Your task to perform on an android device: install app "ColorNote Notepad Notes" Image 0: 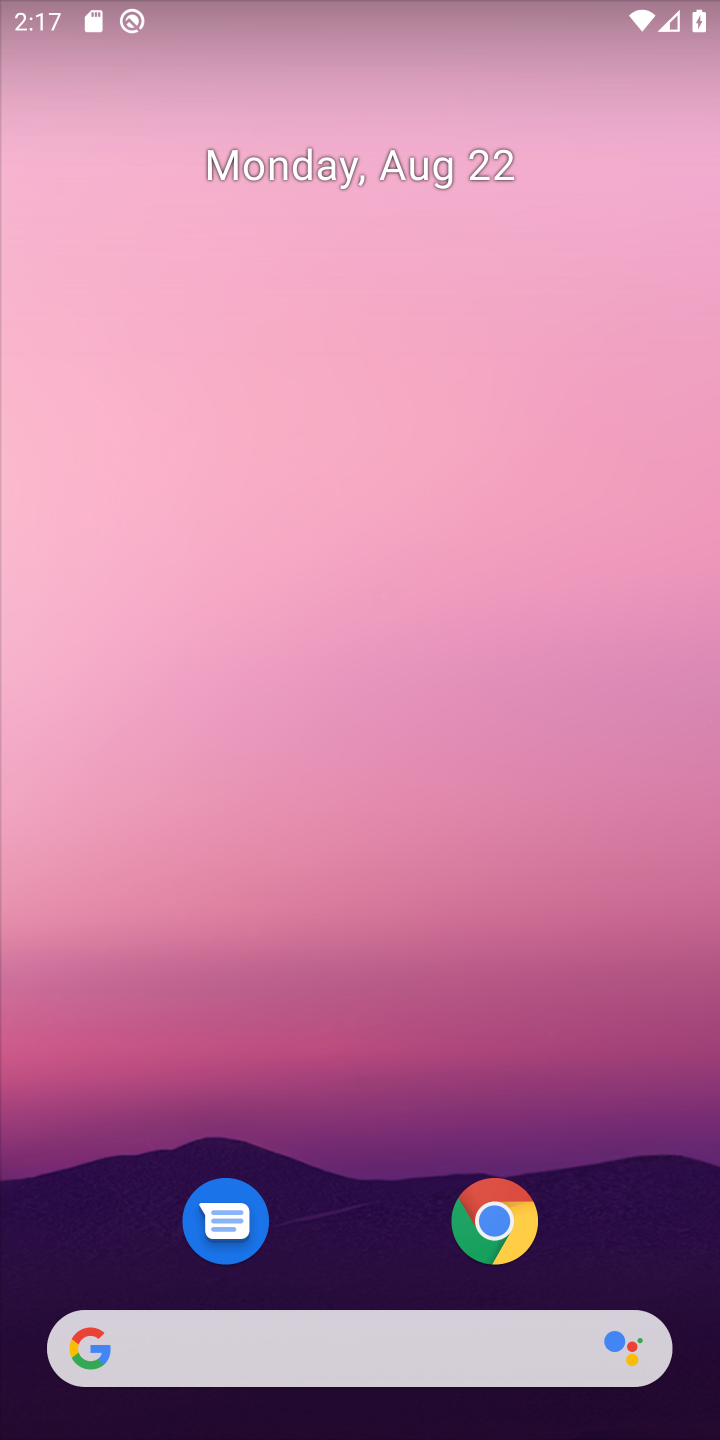
Step 0: drag from (357, 1238) to (293, 197)
Your task to perform on an android device: install app "ColorNote Notepad Notes" Image 1: 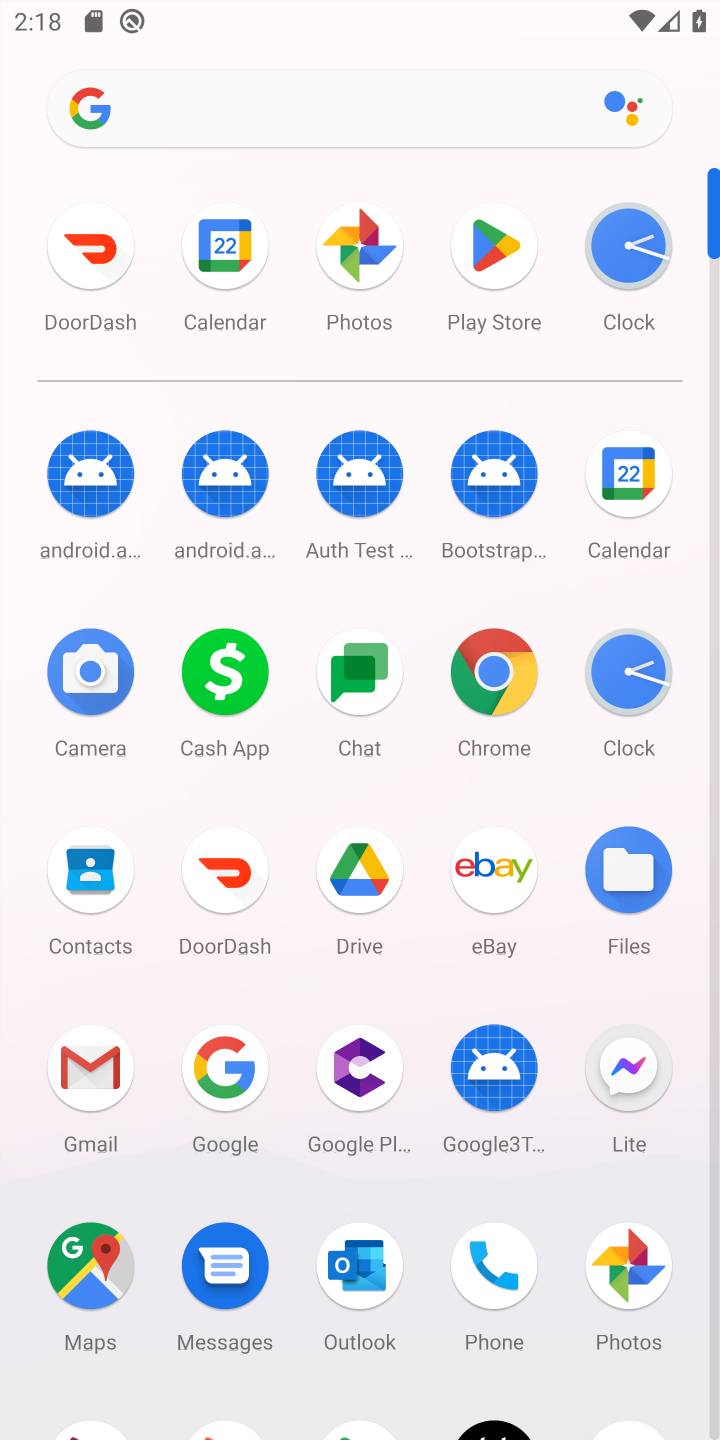
Step 1: click (489, 232)
Your task to perform on an android device: install app "ColorNote Notepad Notes" Image 2: 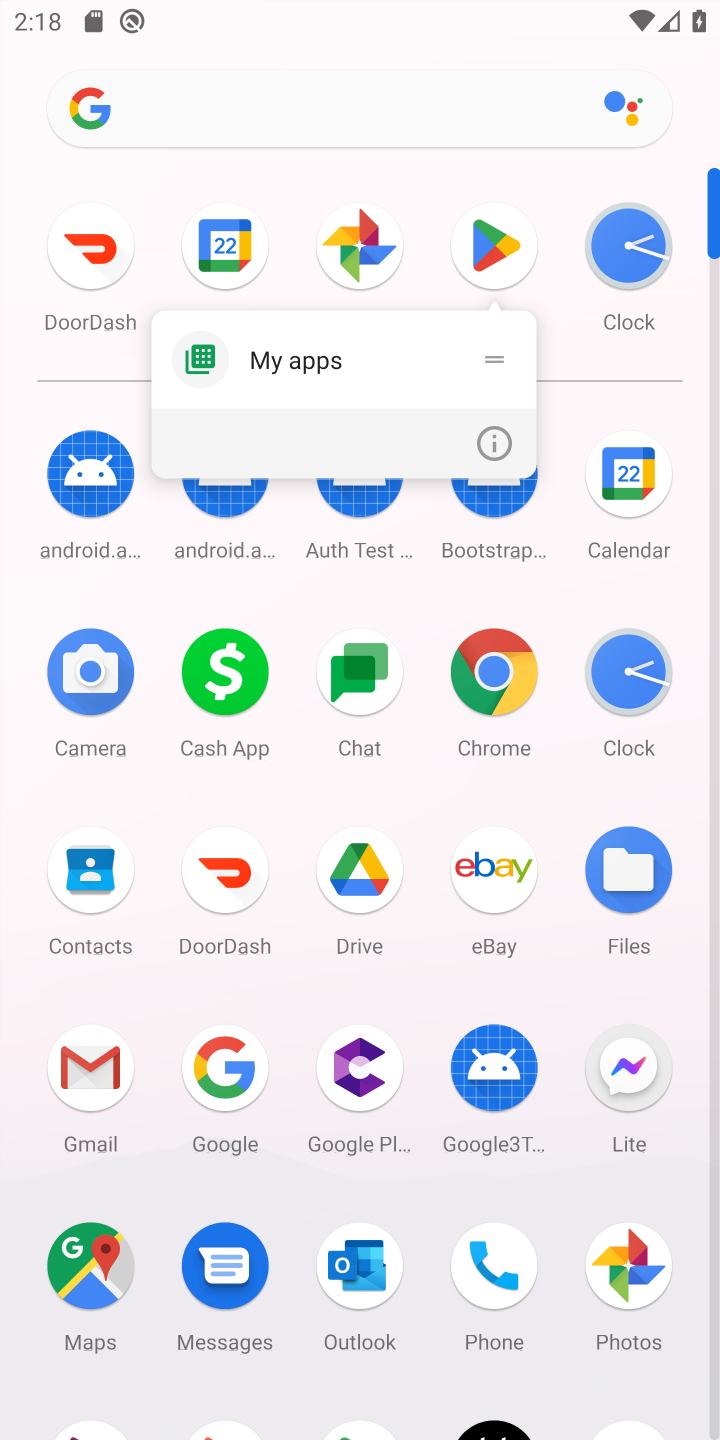
Step 2: click (498, 245)
Your task to perform on an android device: install app "ColorNote Notepad Notes" Image 3: 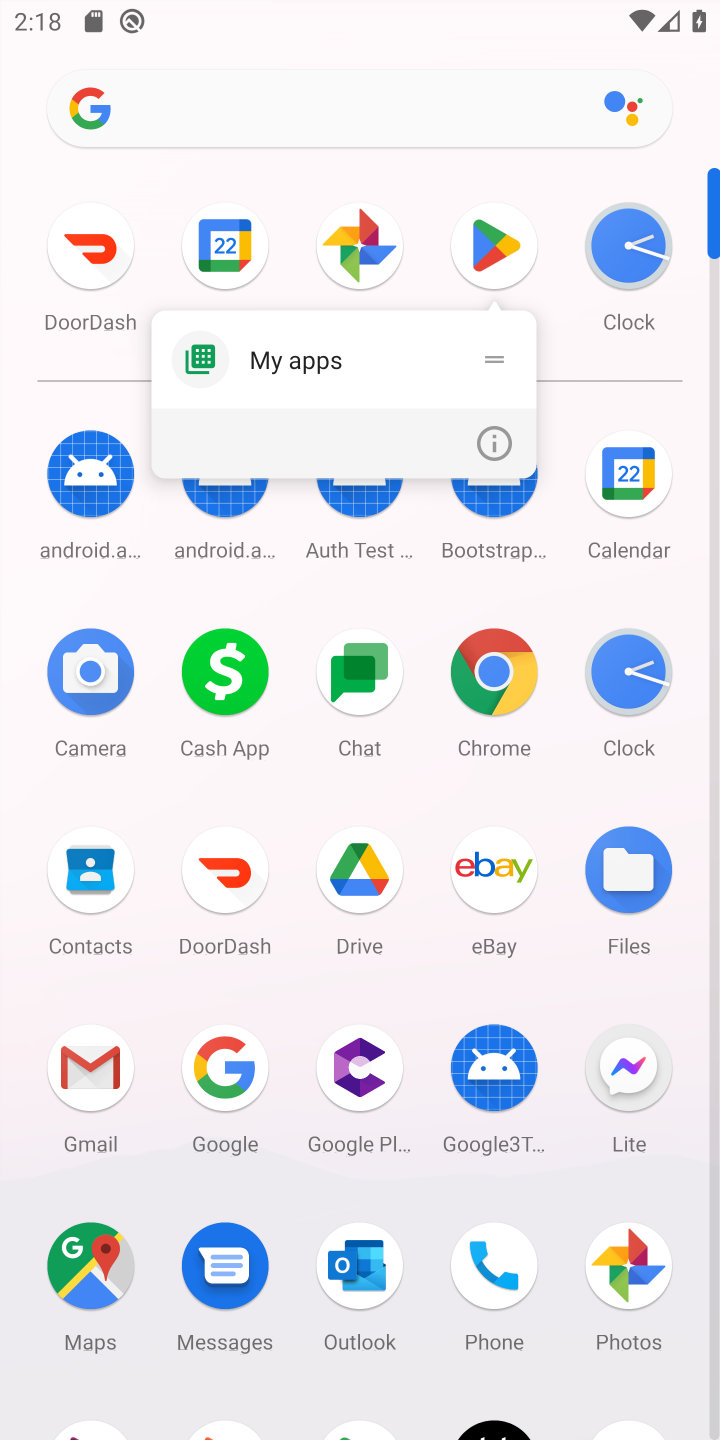
Step 3: click (489, 237)
Your task to perform on an android device: install app "ColorNote Notepad Notes" Image 4: 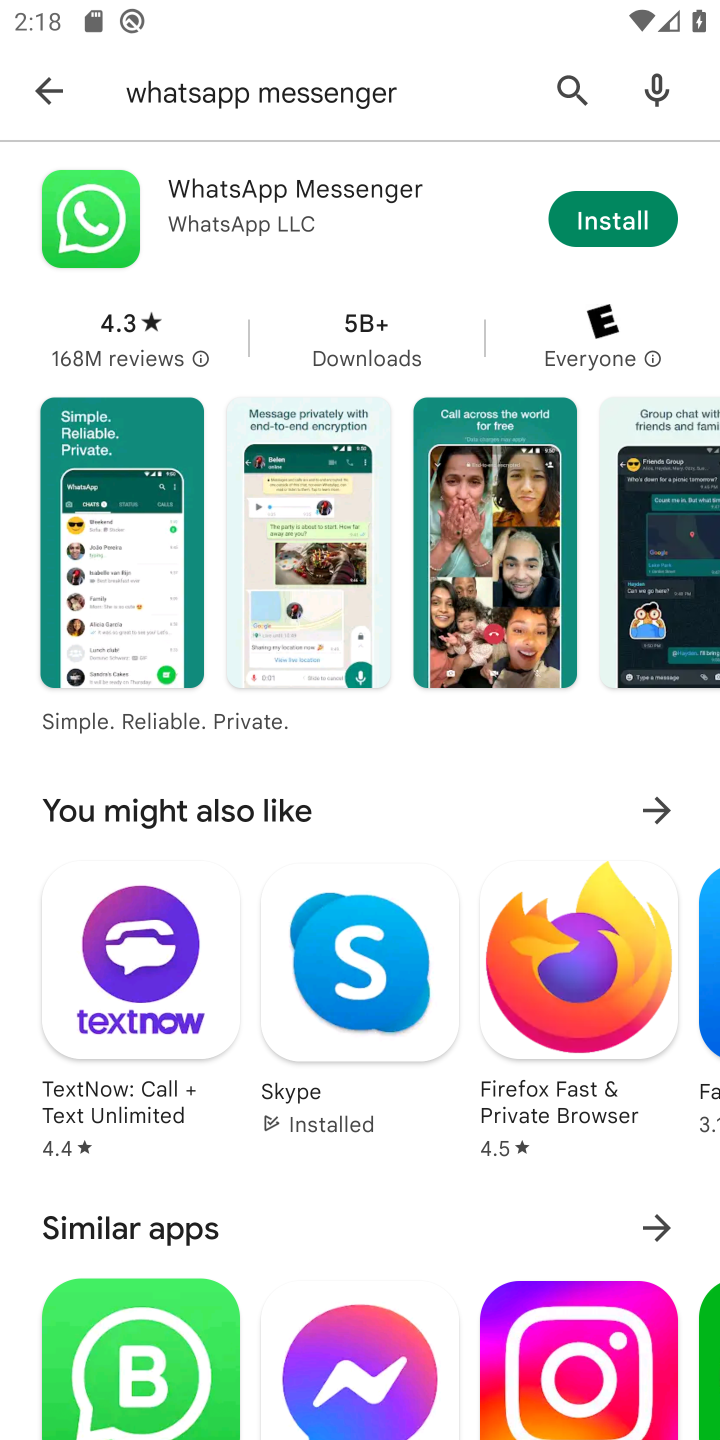
Step 4: click (607, 210)
Your task to perform on an android device: install app "ColorNote Notepad Notes" Image 5: 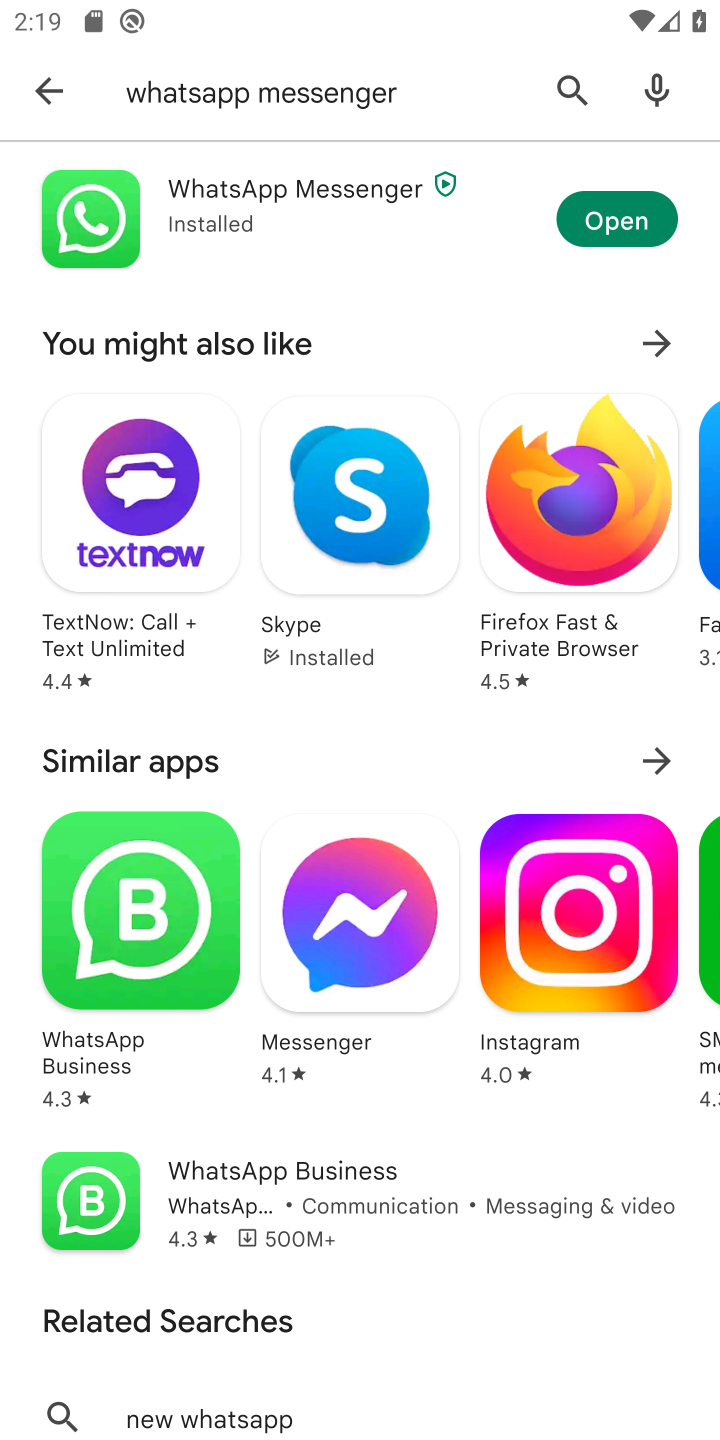
Step 5: click (568, 80)
Your task to perform on an android device: install app "ColorNote Notepad Notes" Image 6: 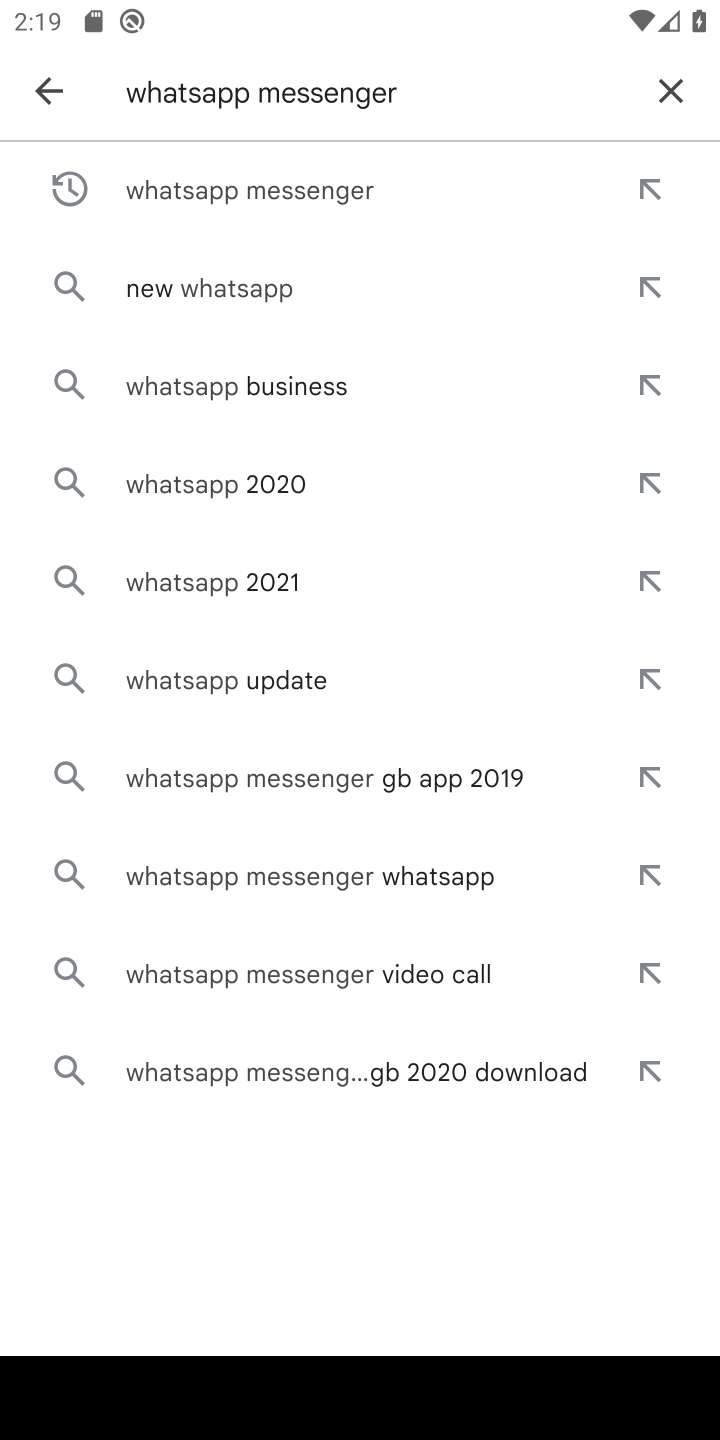
Step 6: click (662, 85)
Your task to perform on an android device: install app "ColorNote Notepad Notes" Image 7: 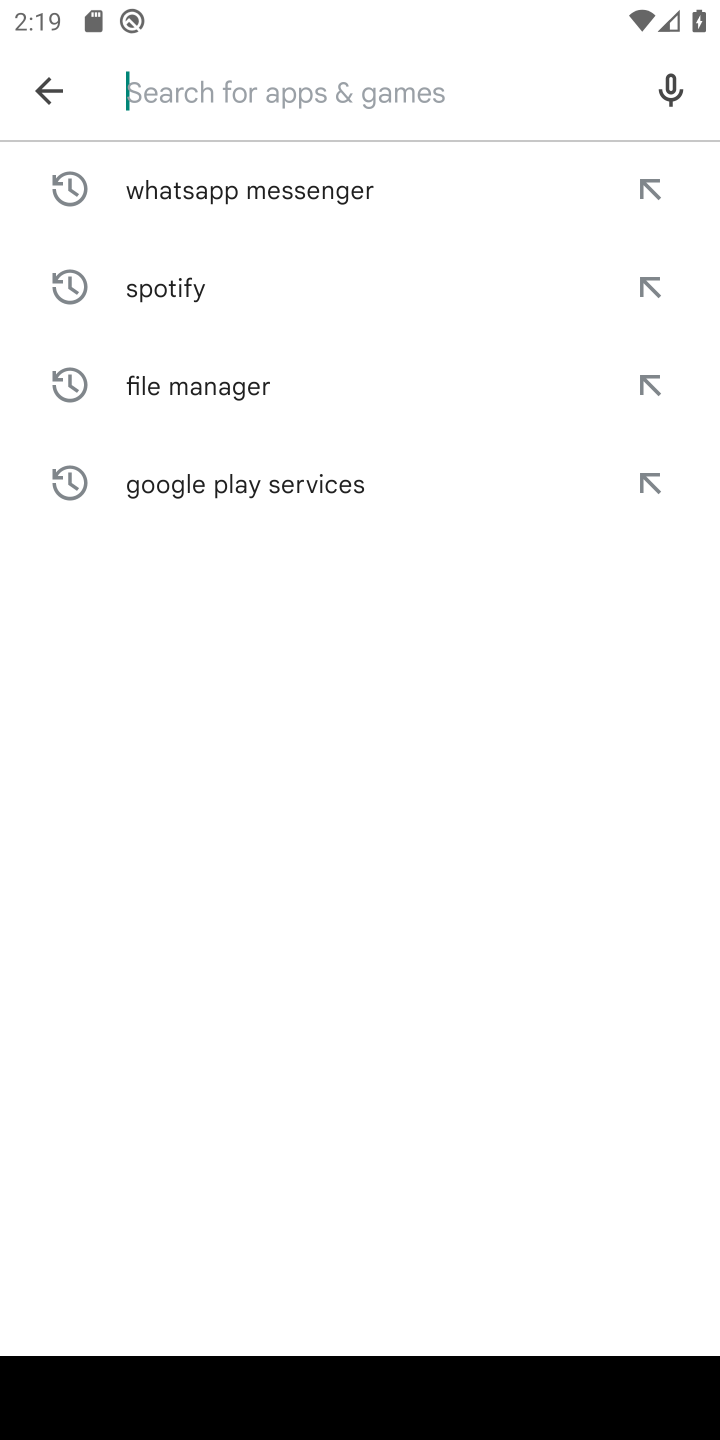
Step 7: type "ColorNote Notepad Notes"
Your task to perform on an android device: install app "ColorNote Notepad Notes" Image 8: 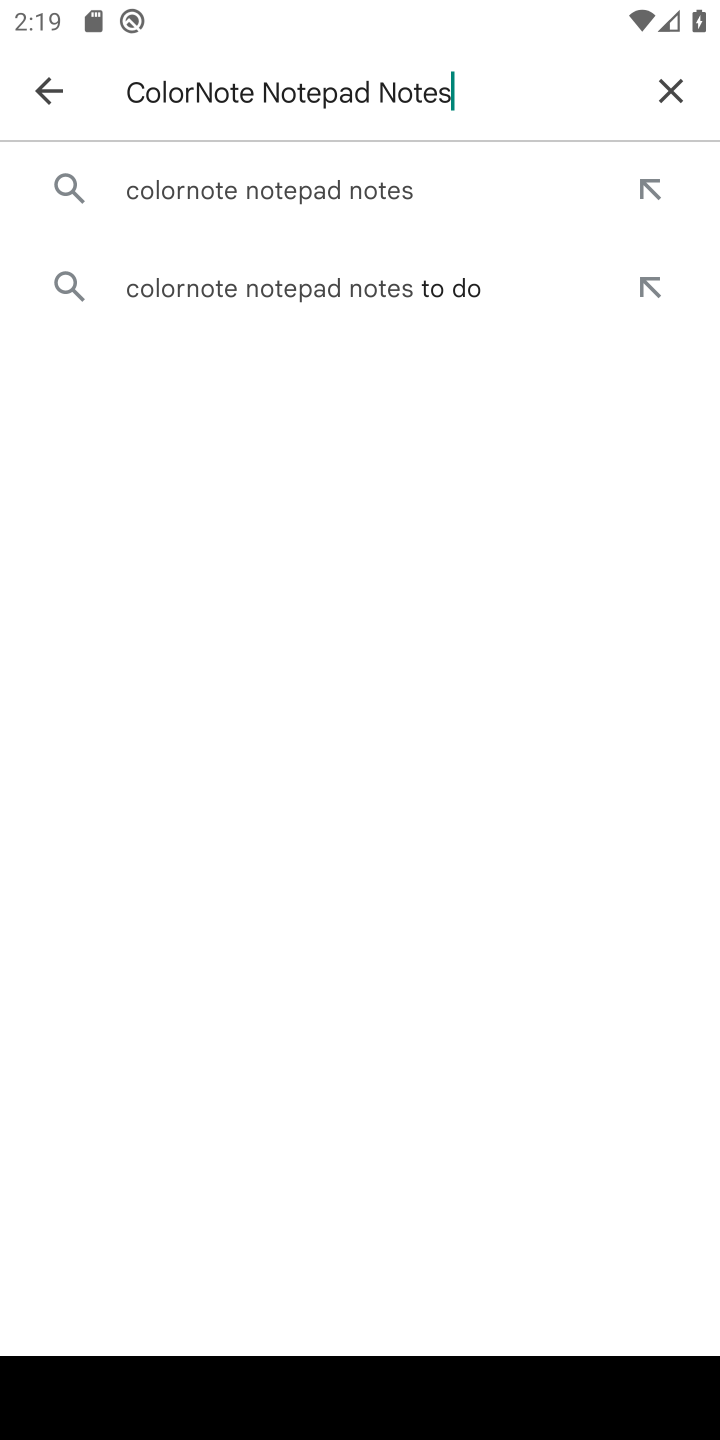
Step 8: click (274, 192)
Your task to perform on an android device: install app "ColorNote Notepad Notes" Image 9: 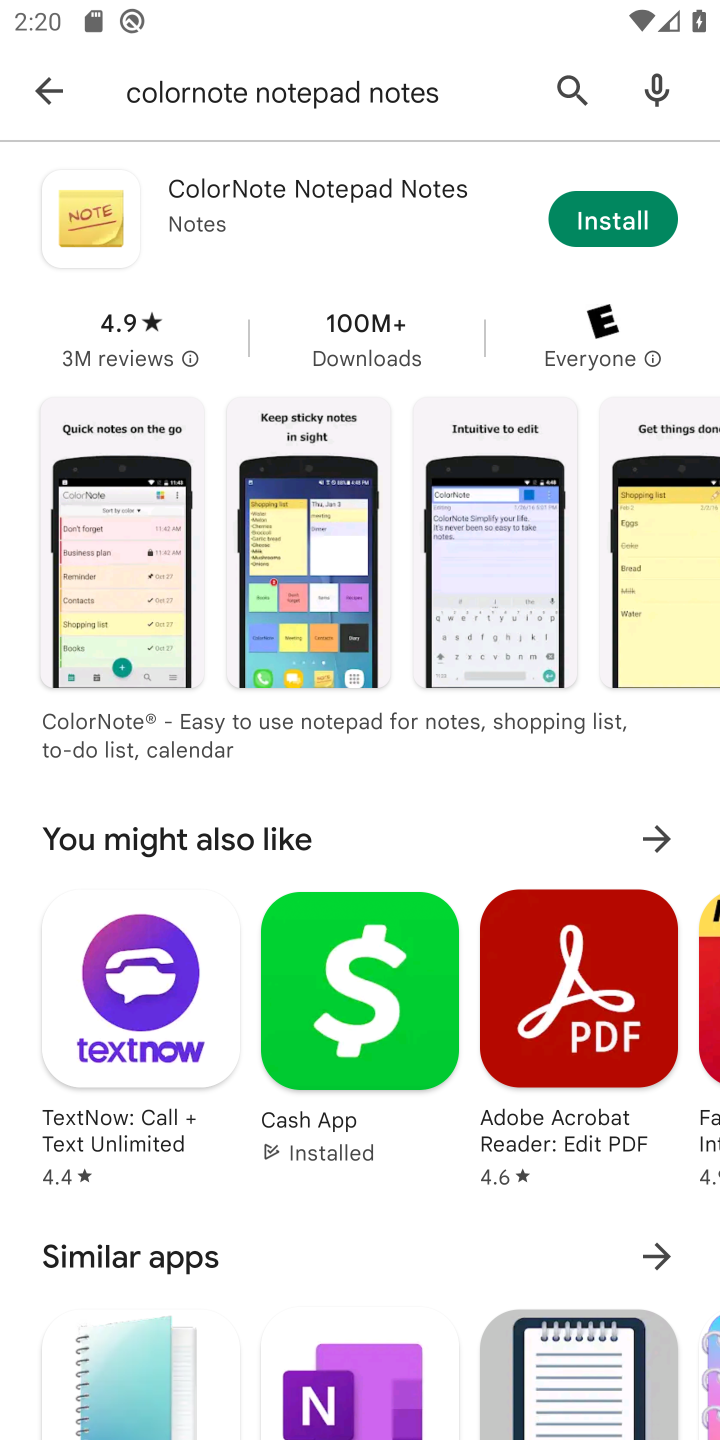
Step 9: click (603, 207)
Your task to perform on an android device: install app "ColorNote Notepad Notes" Image 10: 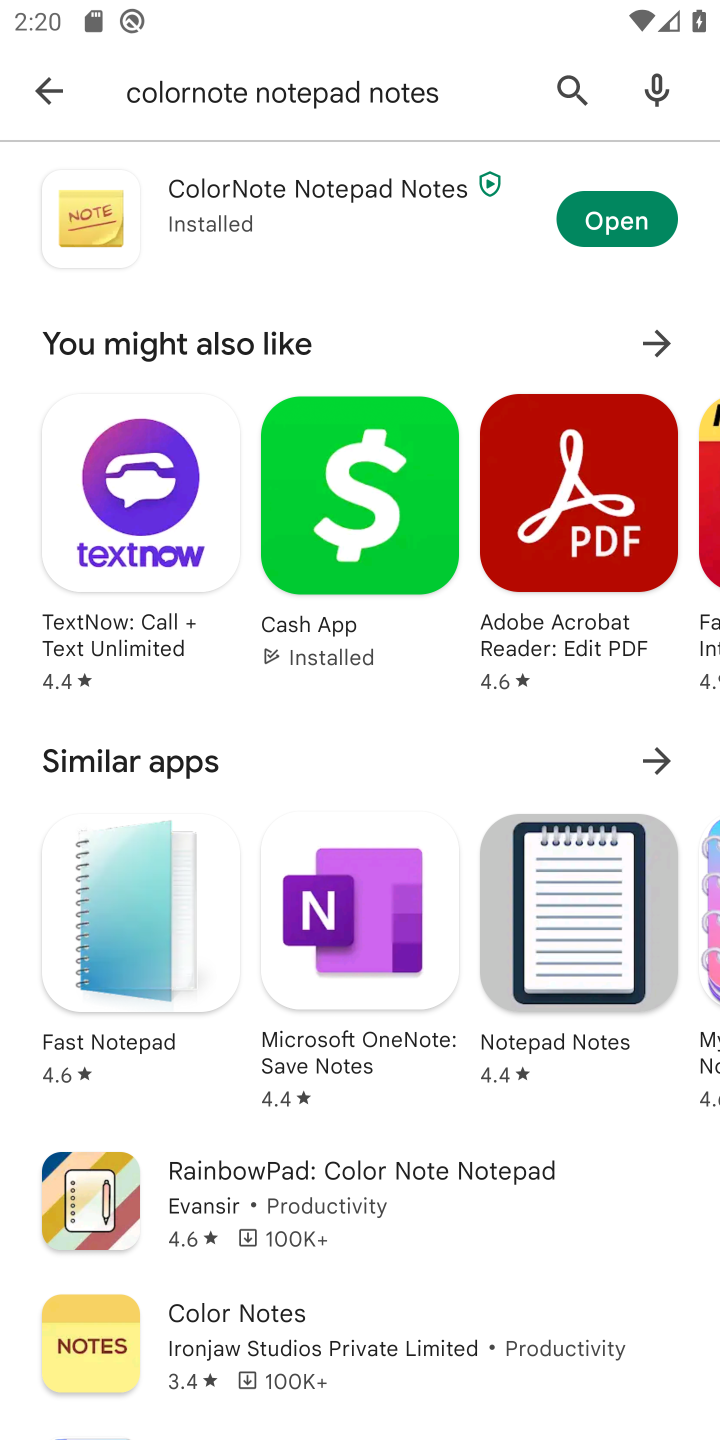
Step 10: click (613, 220)
Your task to perform on an android device: install app "ColorNote Notepad Notes" Image 11: 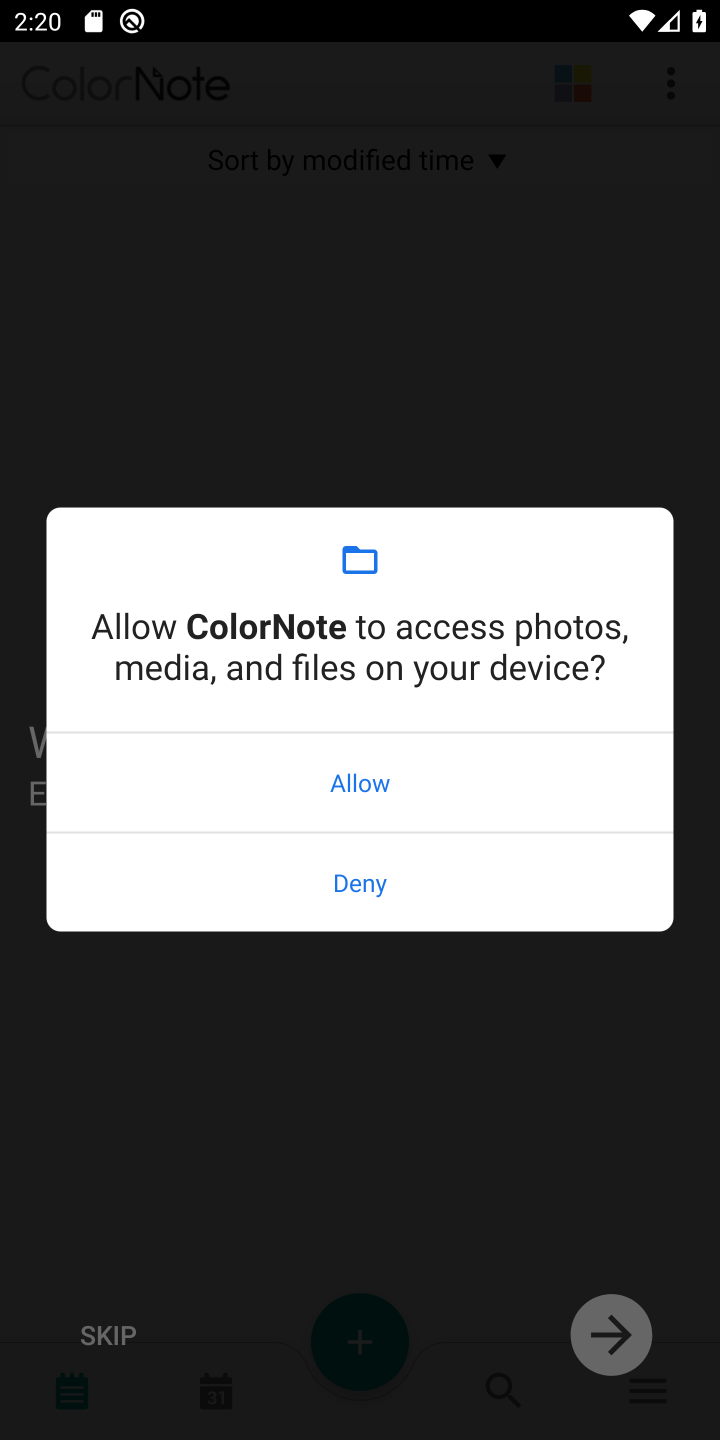
Step 11: click (384, 770)
Your task to perform on an android device: install app "ColorNote Notepad Notes" Image 12: 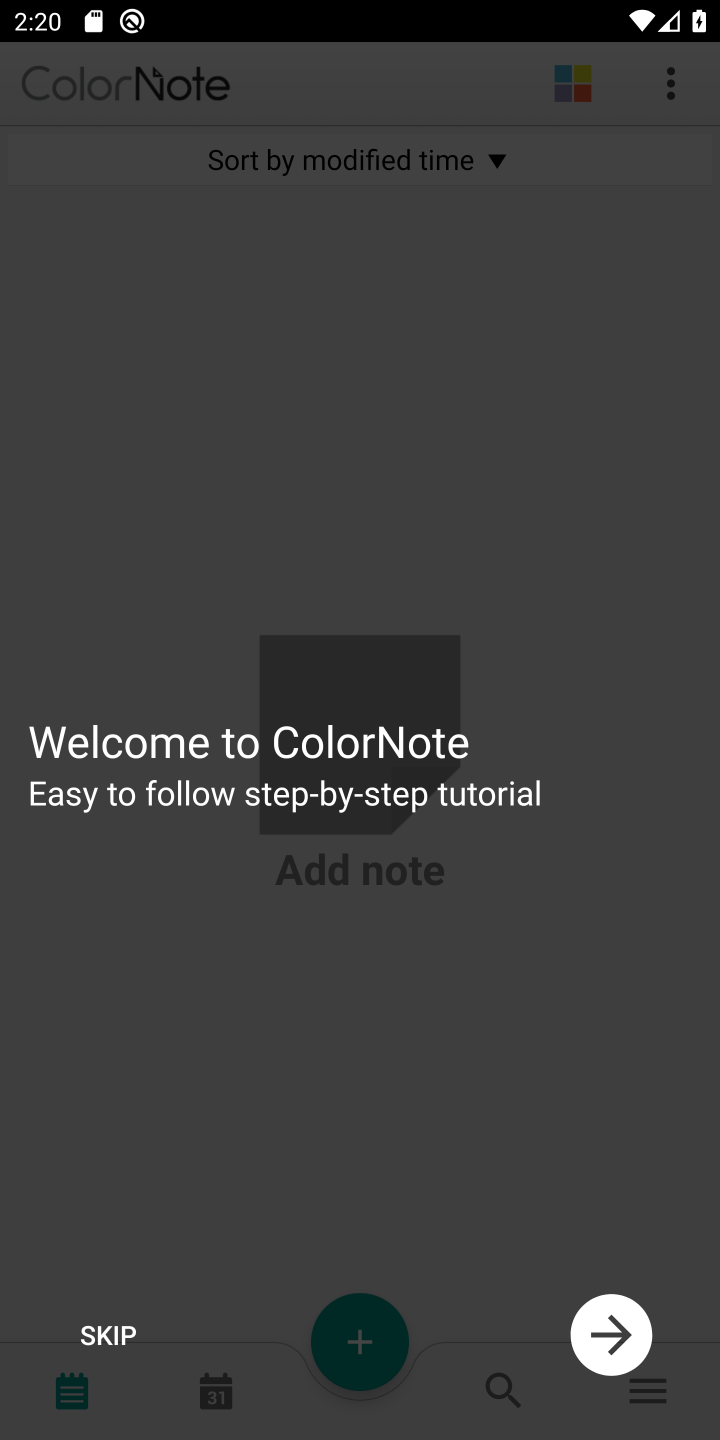
Step 12: click (109, 1342)
Your task to perform on an android device: install app "ColorNote Notepad Notes" Image 13: 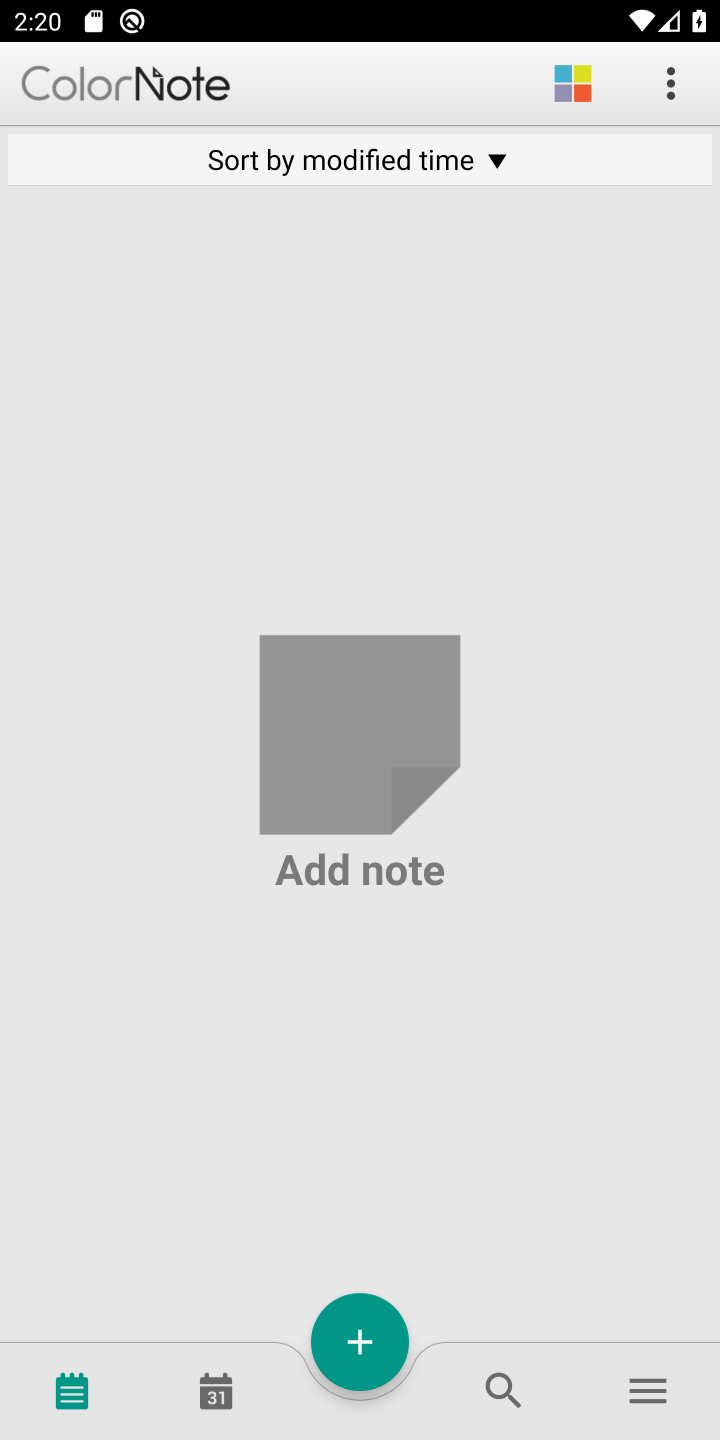
Step 13: task complete